Your task to perform on an android device: turn on javascript in the chrome app Image 0: 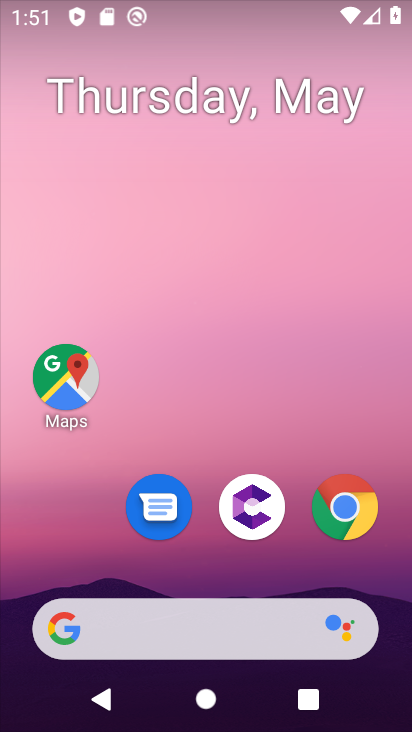
Step 0: click (360, 513)
Your task to perform on an android device: turn on javascript in the chrome app Image 1: 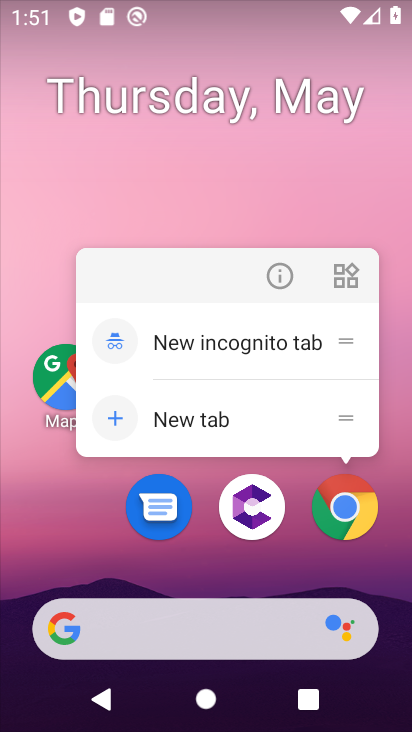
Step 1: click (337, 501)
Your task to perform on an android device: turn on javascript in the chrome app Image 2: 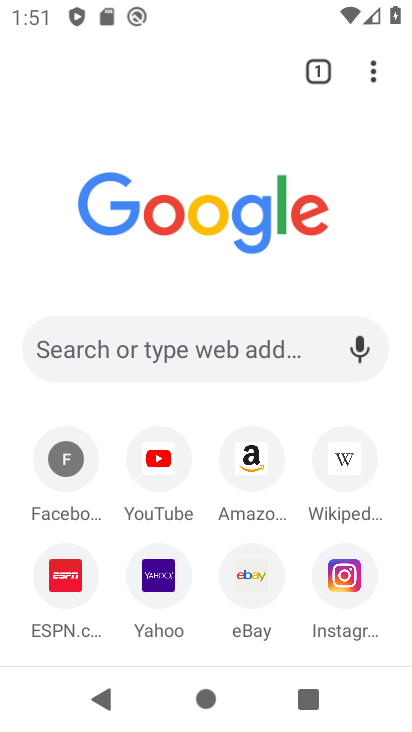
Step 2: click (376, 68)
Your task to perform on an android device: turn on javascript in the chrome app Image 3: 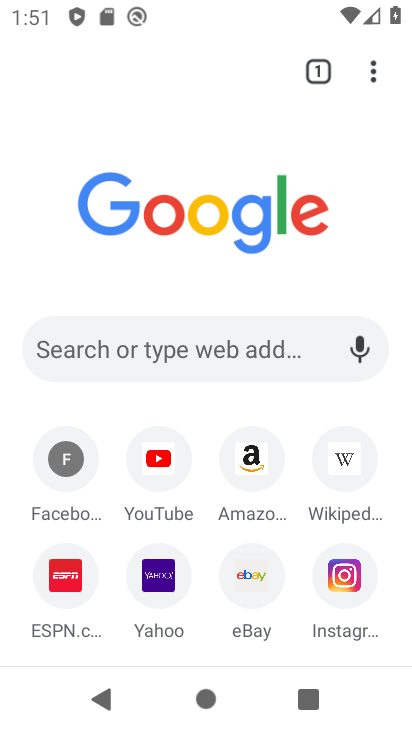
Step 3: click (376, 68)
Your task to perform on an android device: turn on javascript in the chrome app Image 4: 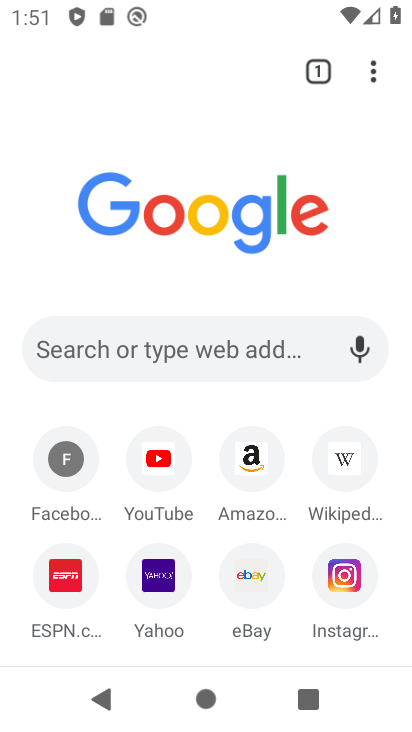
Step 4: drag from (375, 65) to (176, 479)
Your task to perform on an android device: turn on javascript in the chrome app Image 5: 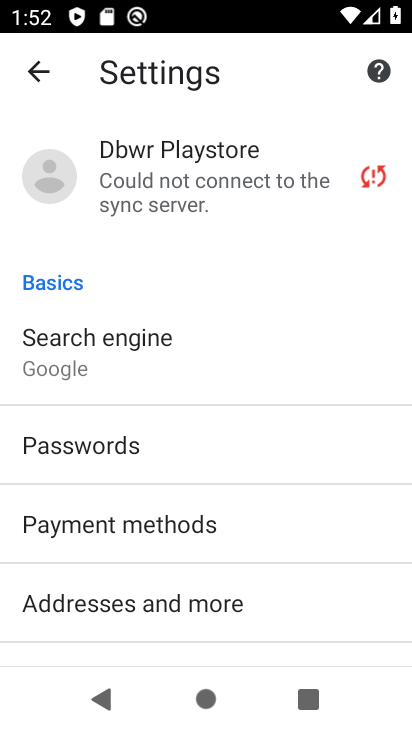
Step 5: drag from (272, 352) to (243, 71)
Your task to perform on an android device: turn on javascript in the chrome app Image 6: 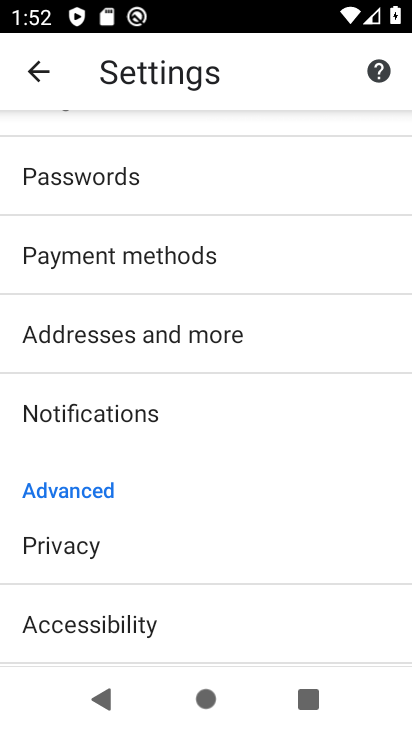
Step 6: drag from (255, 519) to (262, 93)
Your task to perform on an android device: turn on javascript in the chrome app Image 7: 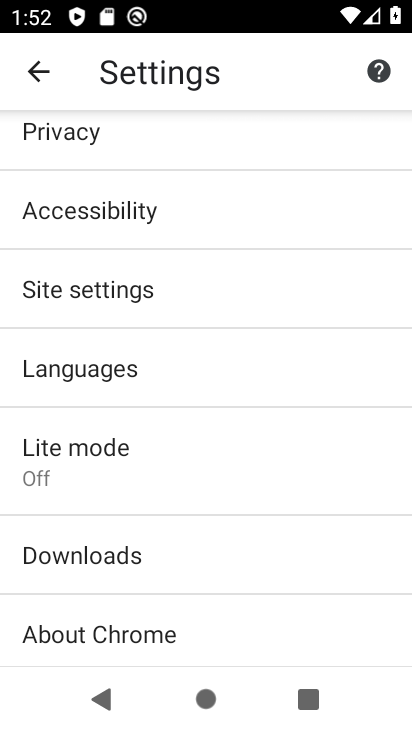
Step 7: drag from (263, 645) to (261, 499)
Your task to perform on an android device: turn on javascript in the chrome app Image 8: 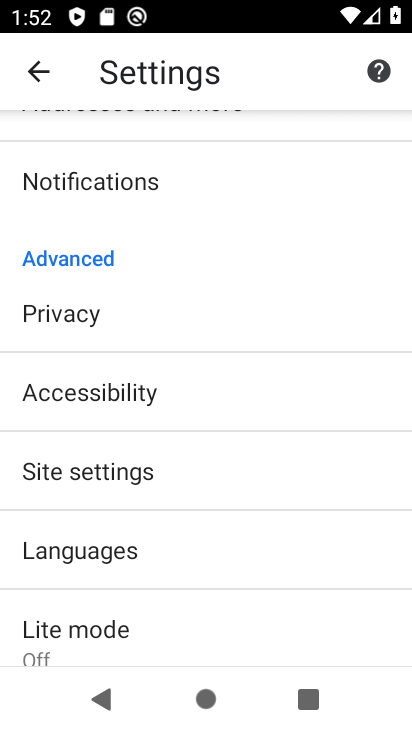
Step 8: click (75, 458)
Your task to perform on an android device: turn on javascript in the chrome app Image 9: 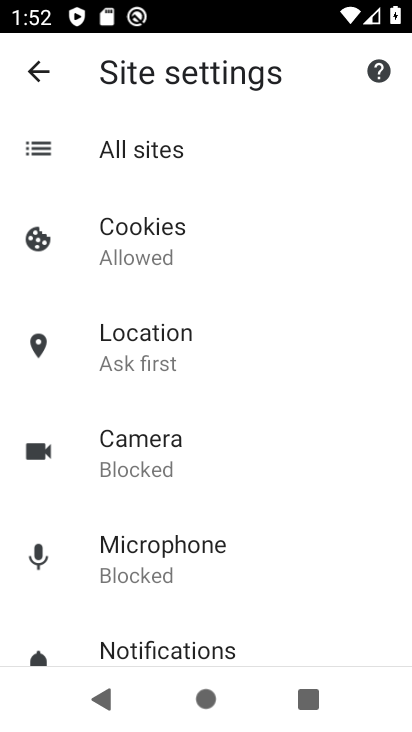
Step 9: drag from (302, 607) to (254, 273)
Your task to perform on an android device: turn on javascript in the chrome app Image 10: 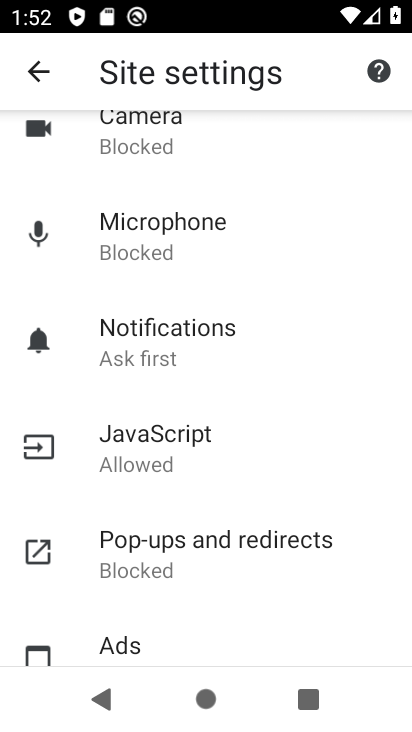
Step 10: click (150, 418)
Your task to perform on an android device: turn on javascript in the chrome app Image 11: 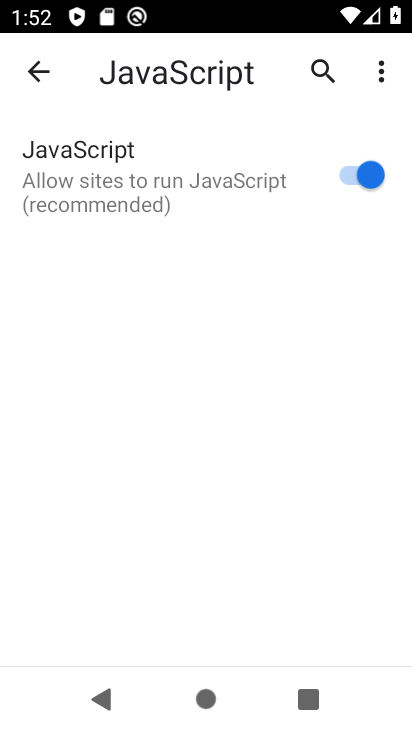
Step 11: task complete